Your task to perform on an android device: toggle notification dots Image 0: 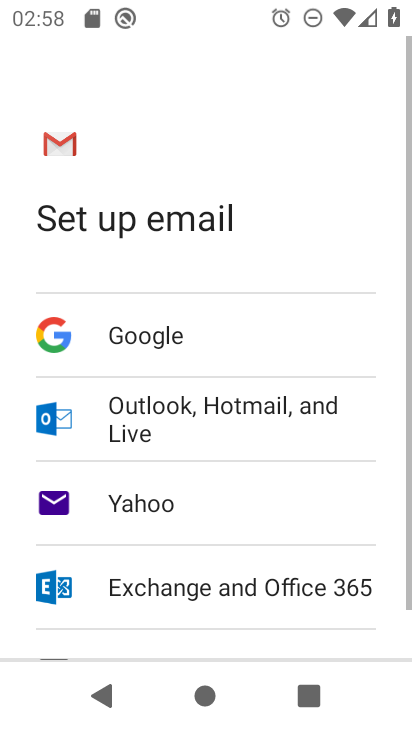
Step 0: press home button
Your task to perform on an android device: toggle notification dots Image 1: 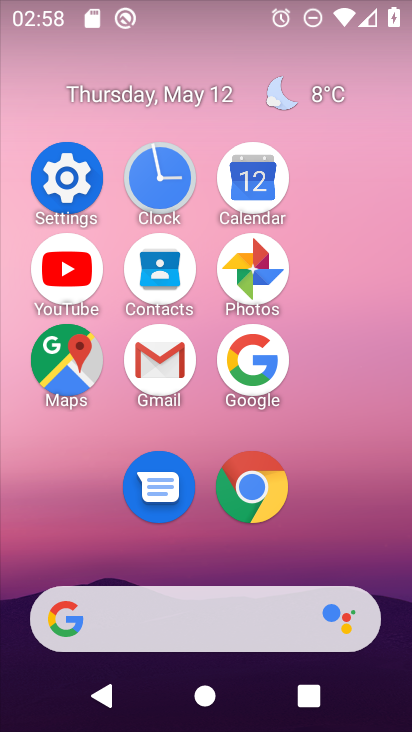
Step 1: click (76, 167)
Your task to perform on an android device: toggle notification dots Image 2: 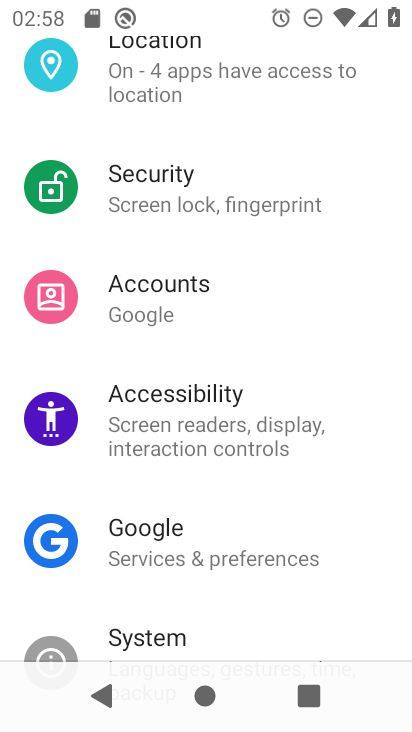
Step 2: drag from (264, 164) to (290, 621)
Your task to perform on an android device: toggle notification dots Image 3: 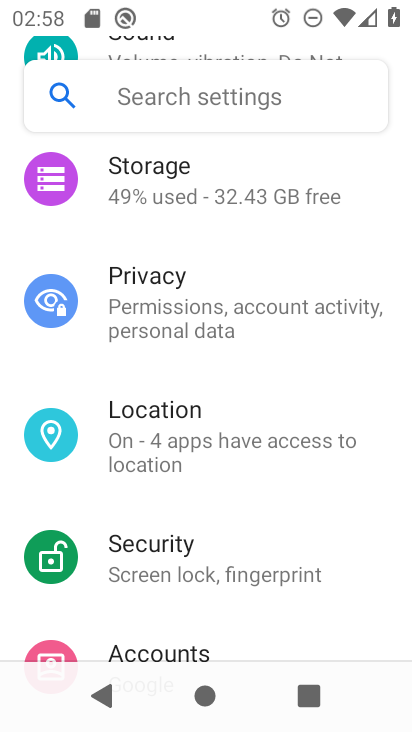
Step 3: drag from (308, 169) to (331, 566)
Your task to perform on an android device: toggle notification dots Image 4: 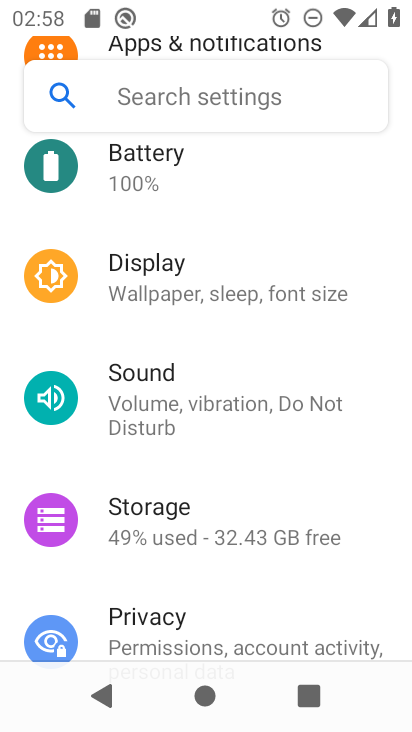
Step 4: drag from (315, 161) to (313, 617)
Your task to perform on an android device: toggle notification dots Image 5: 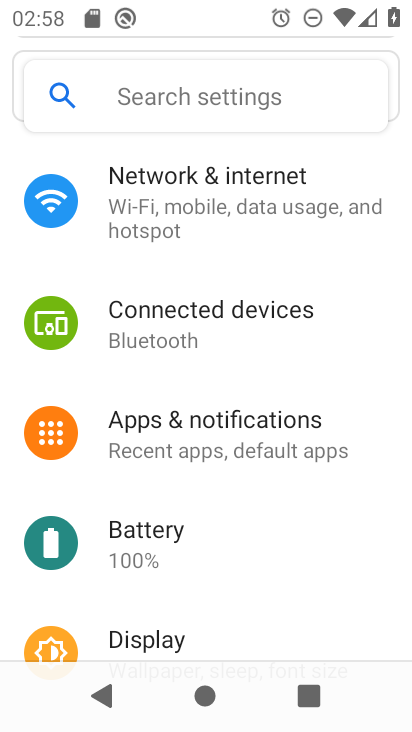
Step 5: click (284, 435)
Your task to perform on an android device: toggle notification dots Image 6: 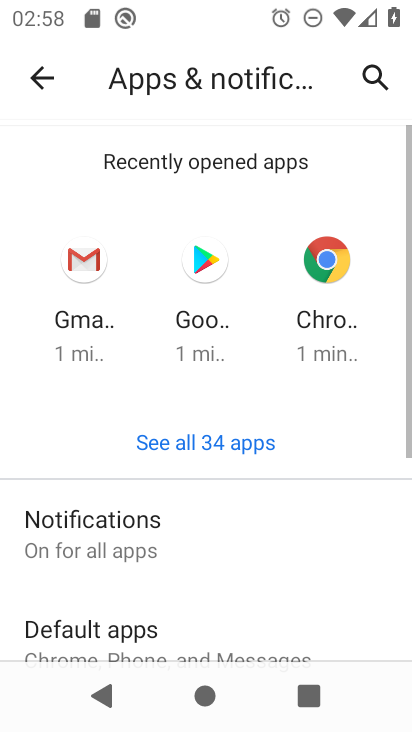
Step 6: click (208, 564)
Your task to perform on an android device: toggle notification dots Image 7: 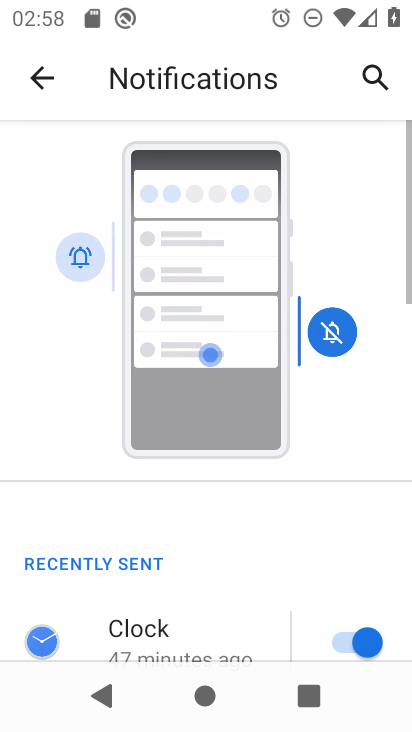
Step 7: drag from (248, 622) to (258, 165)
Your task to perform on an android device: toggle notification dots Image 8: 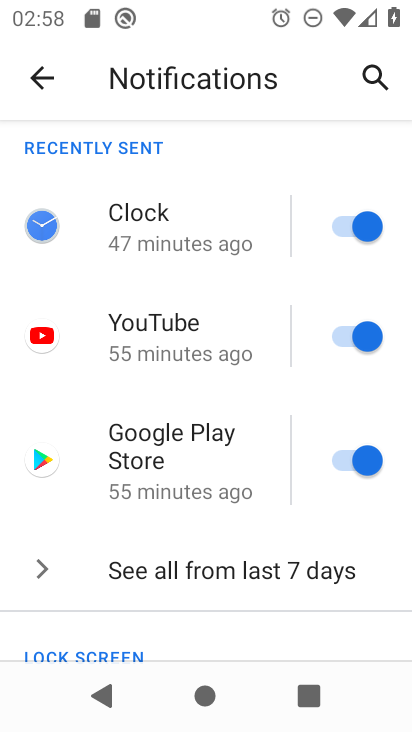
Step 8: drag from (230, 612) to (242, 170)
Your task to perform on an android device: toggle notification dots Image 9: 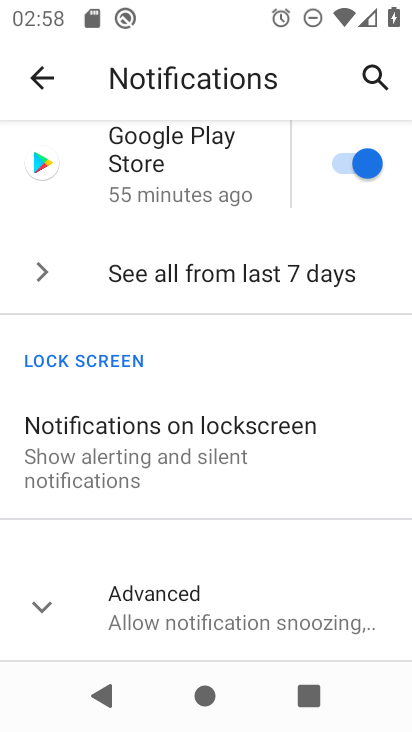
Step 9: click (233, 587)
Your task to perform on an android device: toggle notification dots Image 10: 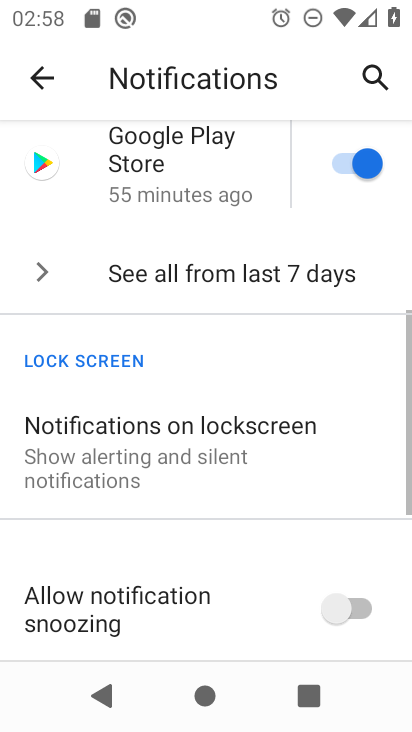
Step 10: drag from (231, 586) to (244, 153)
Your task to perform on an android device: toggle notification dots Image 11: 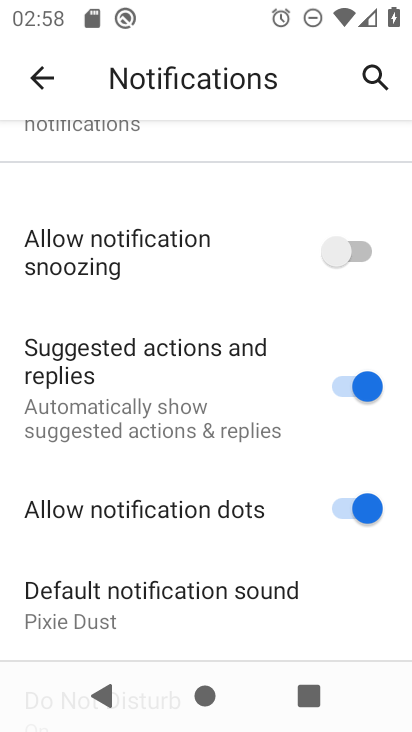
Step 11: click (373, 502)
Your task to perform on an android device: toggle notification dots Image 12: 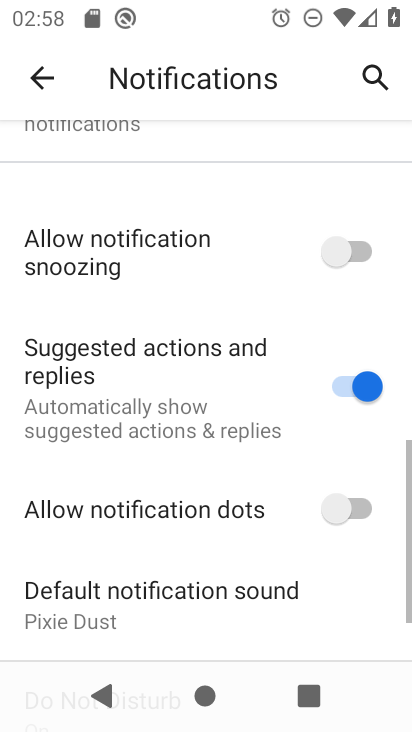
Step 12: task complete